Your task to perform on an android device: check out phone information Image 0: 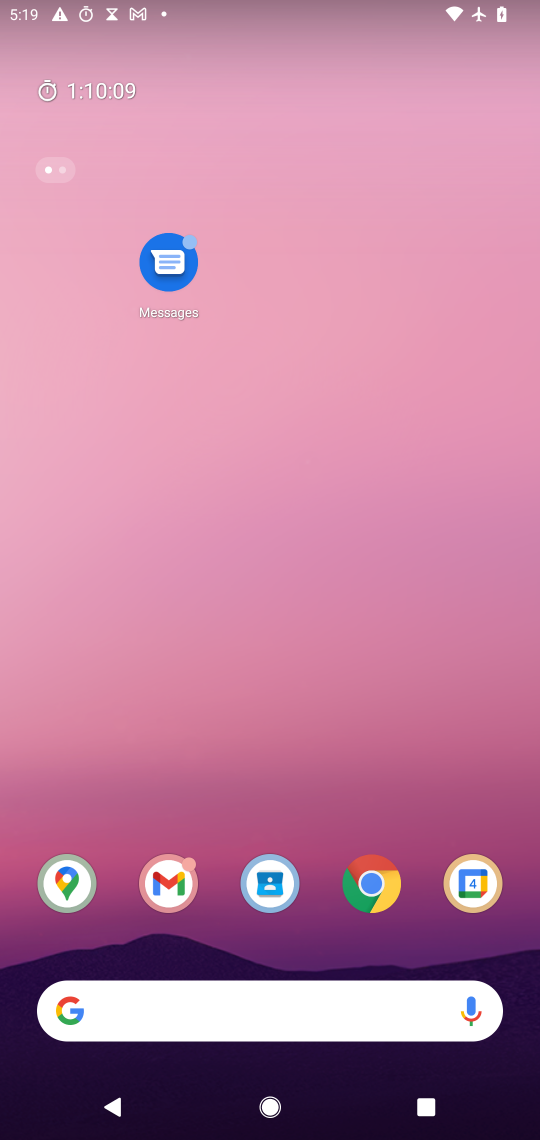
Step 0: drag from (313, 966) to (313, 133)
Your task to perform on an android device: check out phone information Image 1: 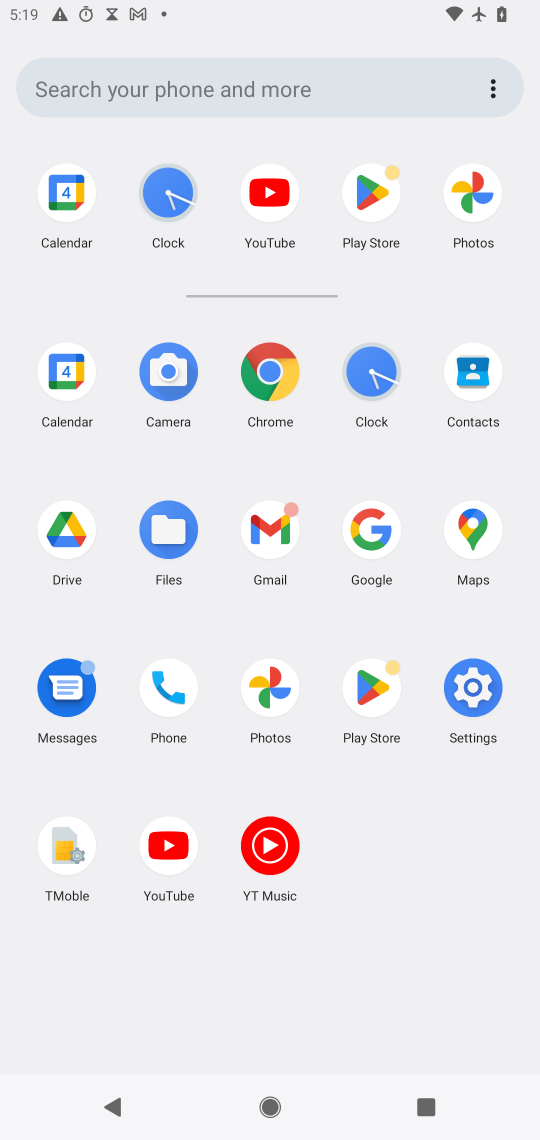
Step 1: click (468, 692)
Your task to perform on an android device: check out phone information Image 2: 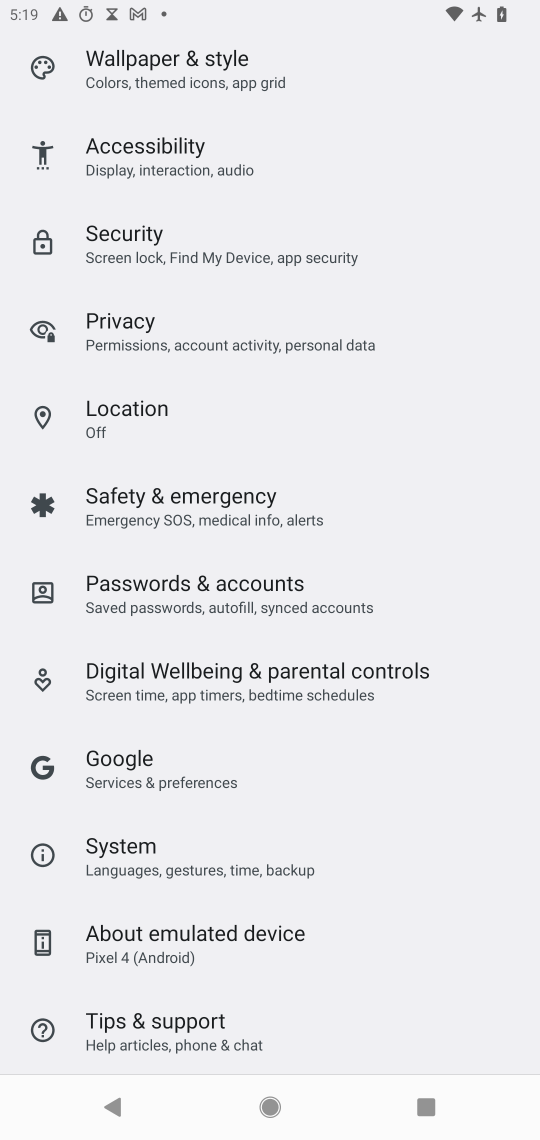
Step 2: drag from (277, 1014) to (288, 467)
Your task to perform on an android device: check out phone information Image 3: 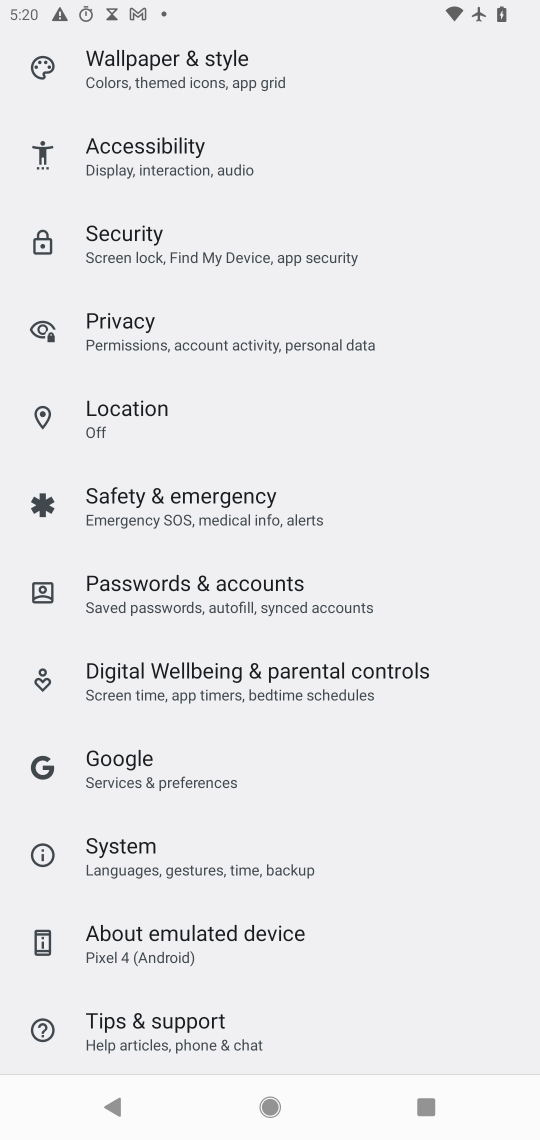
Step 3: click (195, 941)
Your task to perform on an android device: check out phone information Image 4: 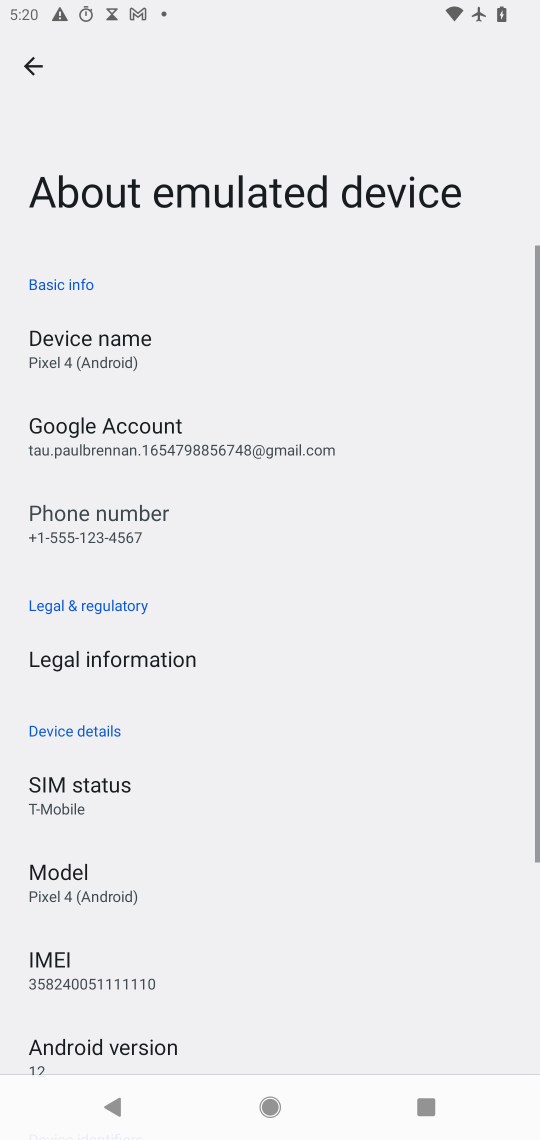
Step 4: task complete